Your task to perform on an android device: Search for pizza restaurants on Maps Image 0: 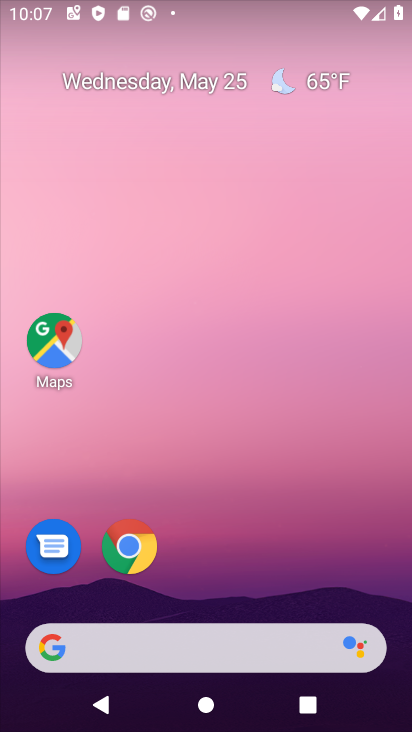
Step 0: drag from (289, 528) to (223, 31)
Your task to perform on an android device: Search for pizza restaurants on Maps Image 1: 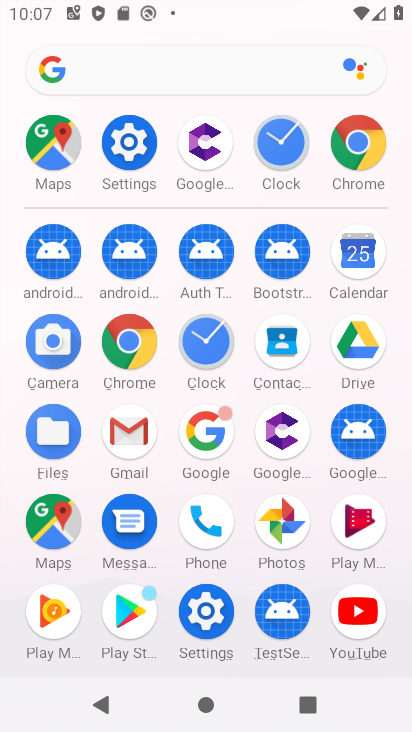
Step 1: drag from (17, 605) to (8, 338)
Your task to perform on an android device: Search for pizza restaurants on Maps Image 2: 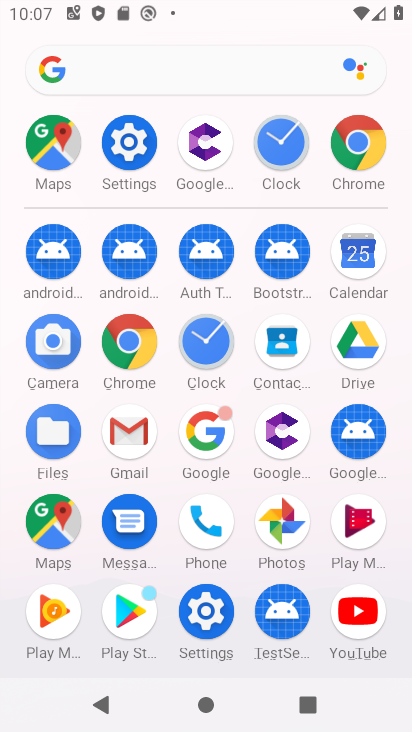
Step 2: click (54, 517)
Your task to perform on an android device: Search for pizza restaurants on Maps Image 3: 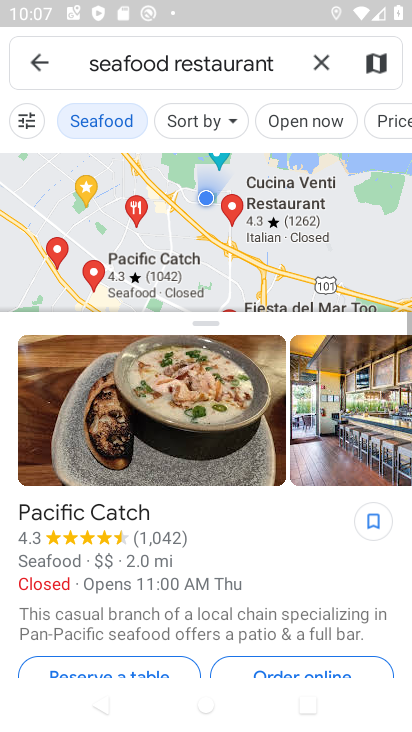
Step 3: click (37, 57)
Your task to perform on an android device: Search for pizza restaurants on Maps Image 4: 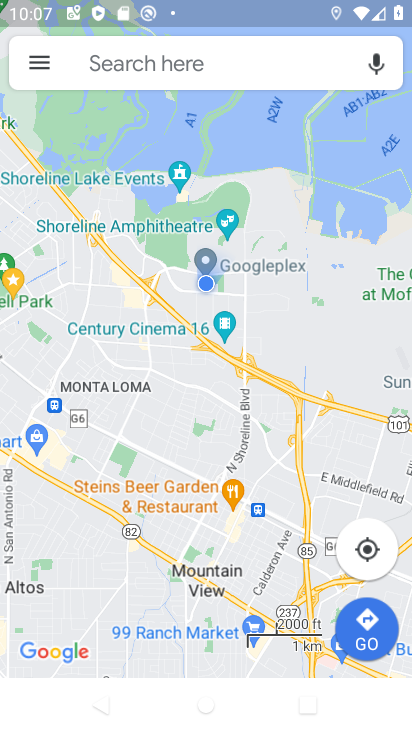
Step 4: click (229, 64)
Your task to perform on an android device: Search for pizza restaurants on Maps Image 5: 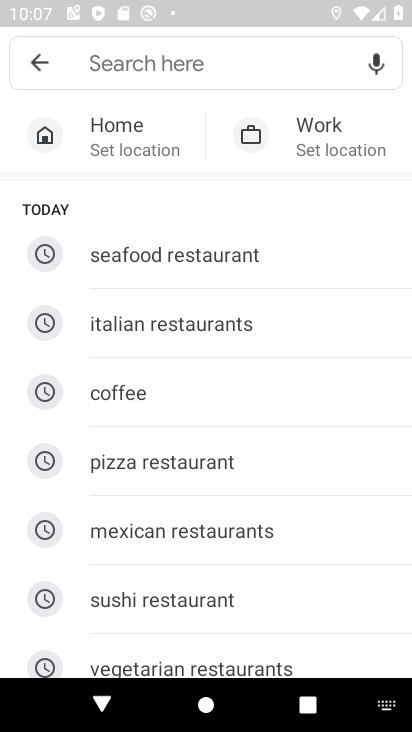
Step 5: drag from (260, 529) to (258, 276)
Your task to perform on an android device: Search for pizza restaurants on Maps Image 6: 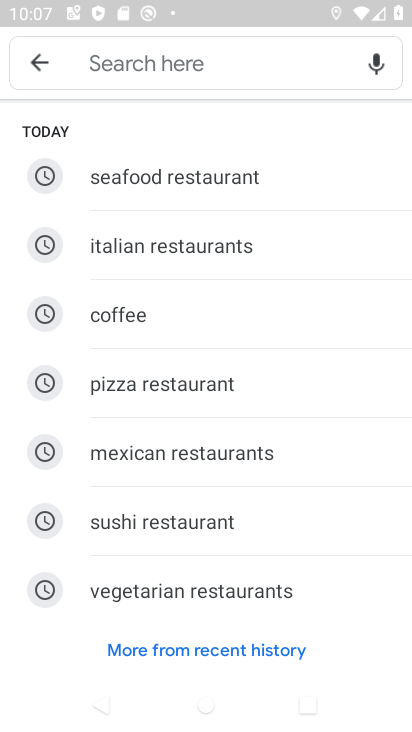
Step 6: click (180, 384)
Your task to perform on an android device: Search for pizza restaurants on Maps Image 7: 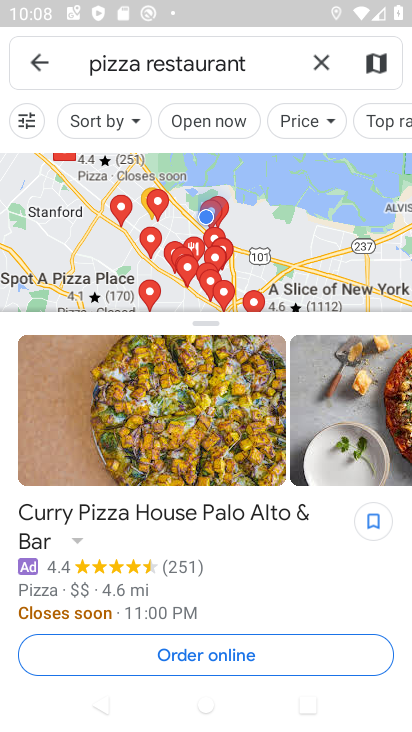
Step 7: task complete